Your task to perform on an android device: Search for Italian restaurants on Maps Image 0: 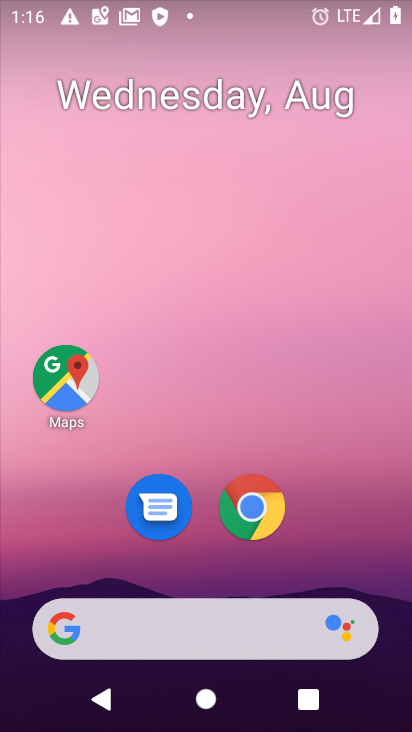
Step 0: drag from (216, 582) to (268, 69)
Your task to perform on an android device: Search for Italian restaurants on Maps Image 1: 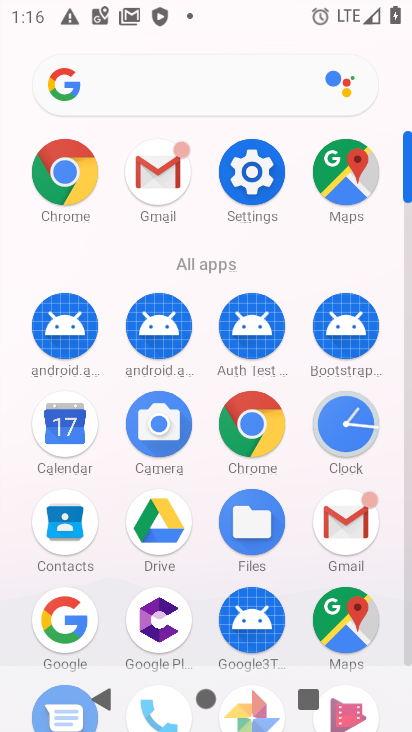
Step 1: click (357, 649)
Your task to perform on an android device: Search for Italian restaurants on Maps Image 2: 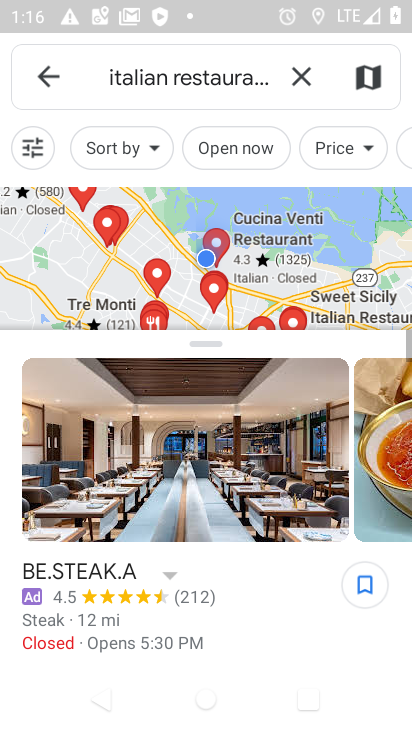
Step 2: task complete